Your task to perform on an android device: Go to sound settings Image 0: 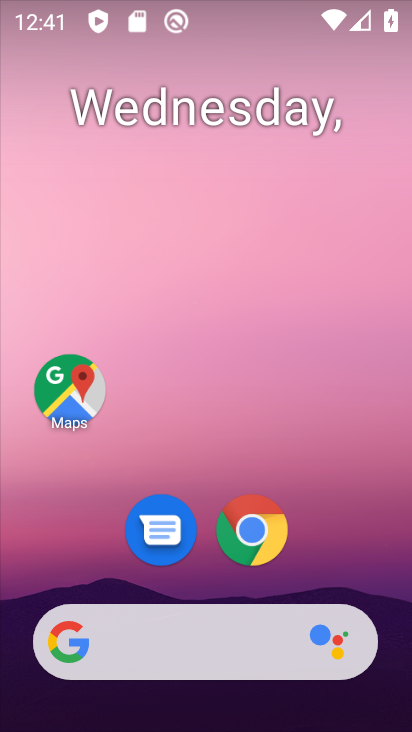
Step 0: drag from (348, 564) to (353, 258)
Your task to perform on an android device: Go to sound settings Image 1: 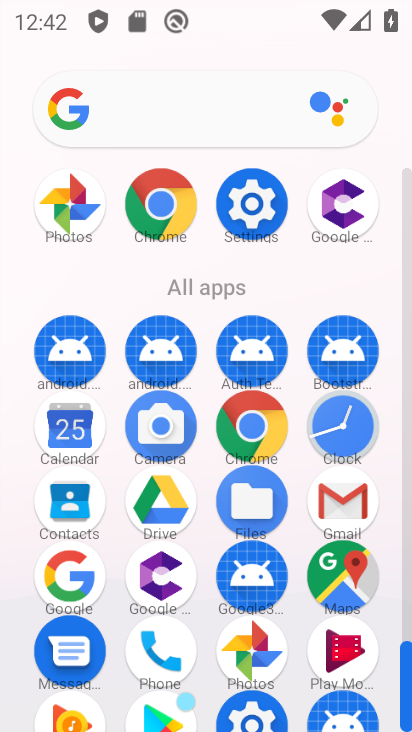
Step 1: click (263, 205)
Your task to perform on an android device: Go to sound settings Image 2: 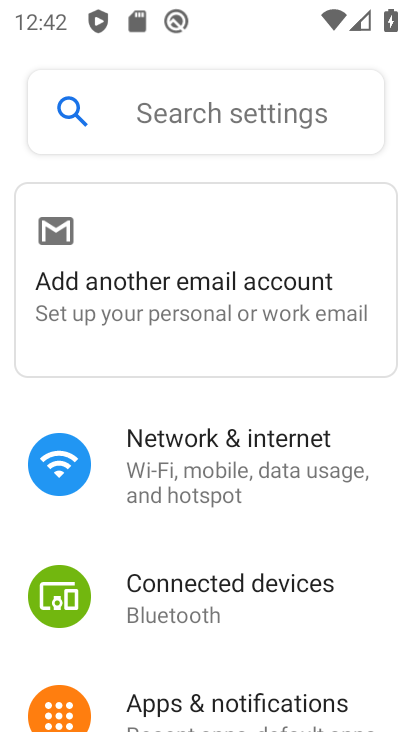
Step 2: drag from (285, 698) to (272, 320)
Your task to perform on an android device: Go to sound settings Image 3: 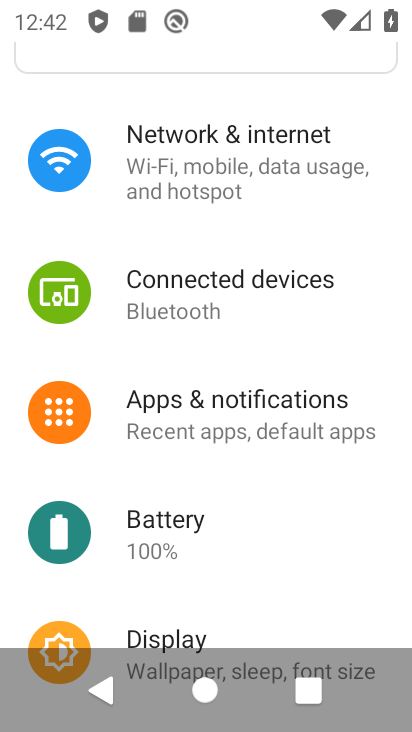
Step 3: drag from (289, 497) to (281, 199)
Your task to perform on an android device: Go to sound settings Image 4: 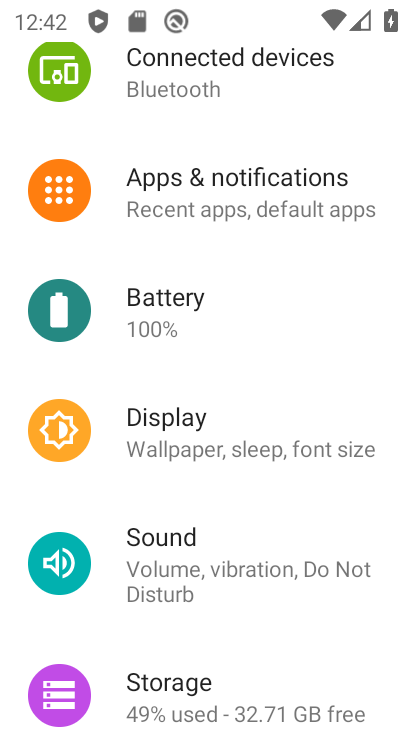
Step 4: drag from (259, 592) to (250, 243)
Your task to perform on an android device: Go to sound settings Image 5: 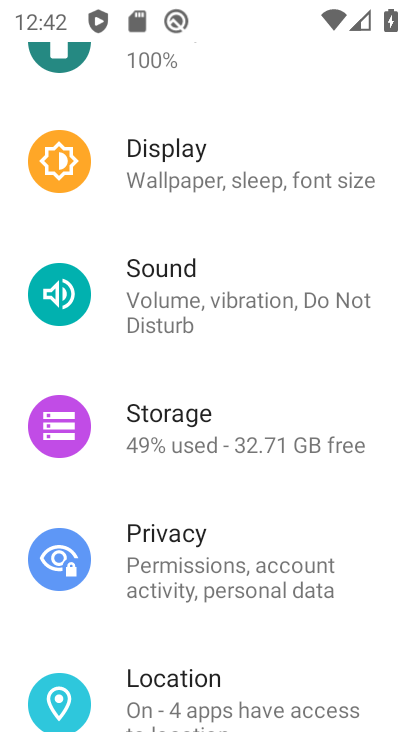
Step 5: drag from (254, 591) to (258, 236)
Your task to perform on an android device: Go to sound settings Image 6: 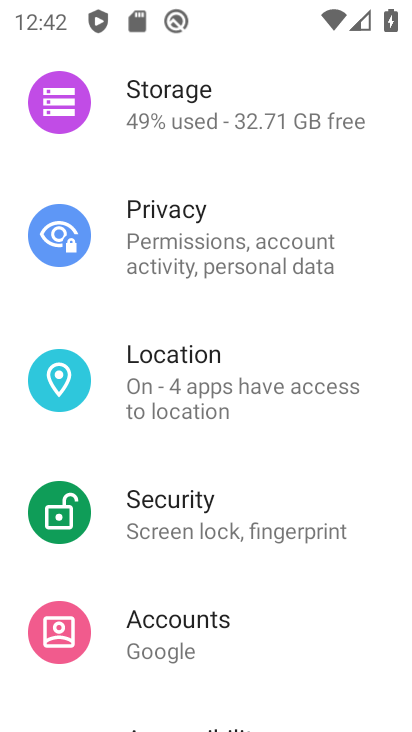
Step 6: drag from (216, 117) to (253, 587)
Your task to perform on an android device: Go to sound settings Image 7: 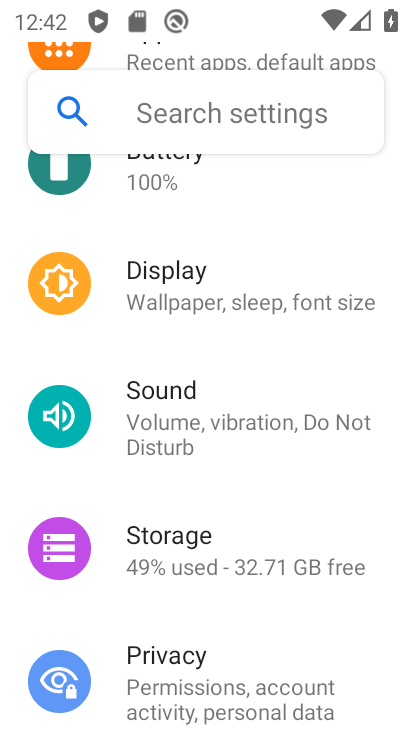
Step 7: drag from (236, 208) to (243, 553)
Your task to perform on an android device: Go to sound settings Image 8: 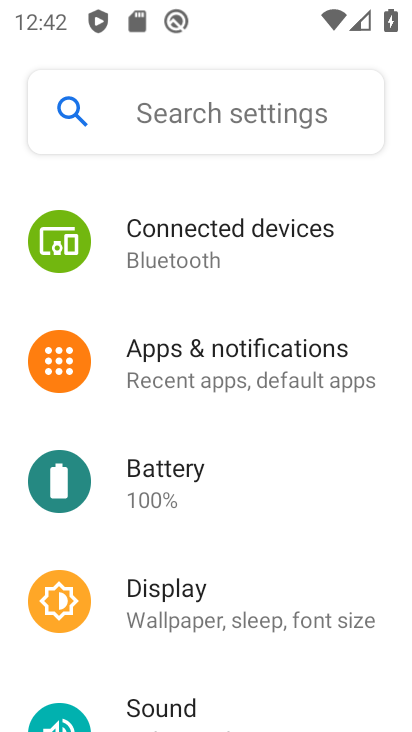
Step 8: click (240, 703)
Your task to perform on an android device: Go to sound settings Image 9: 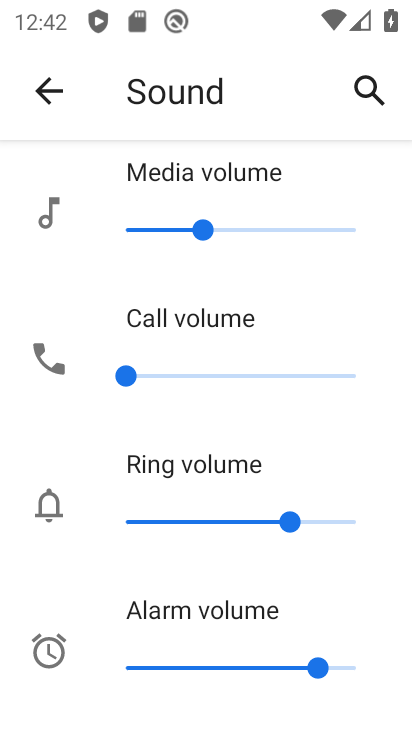
Step 9: task complete